Your task to perform on an android device: Open the map Image 0: 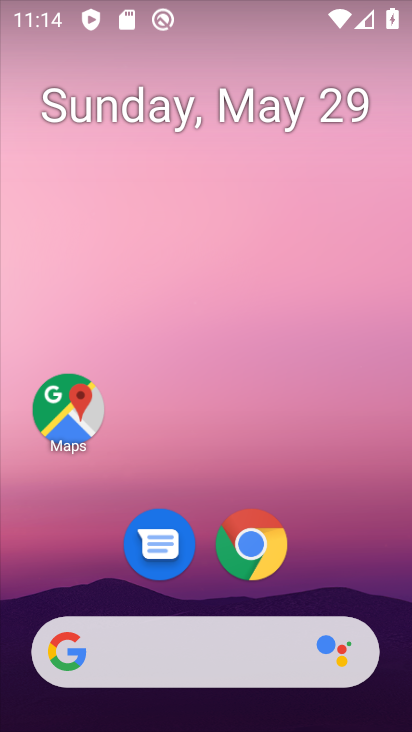
Step 0: press home button
Your task to perform on an android device: Open the map Image 1: 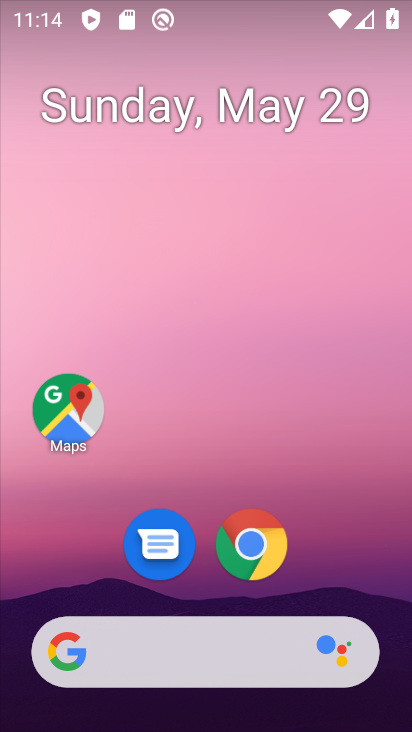
Step 1: click (66, 401)
Your task to perform on an android device: Open the map Image 2: 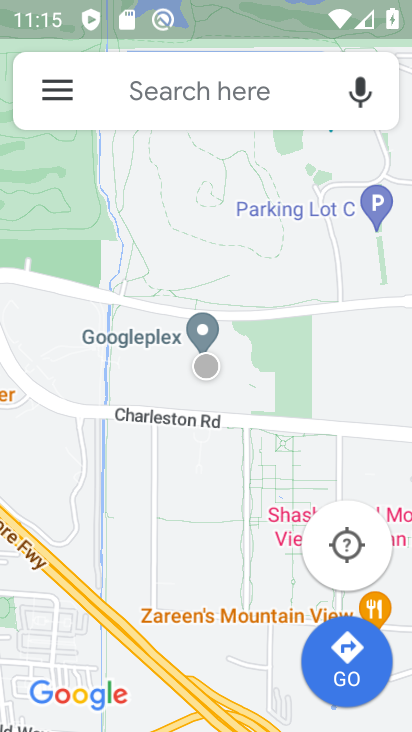
Step 2: task complete